Your task to perform on an android device: make emails show in primary in the gmail app Image 0: 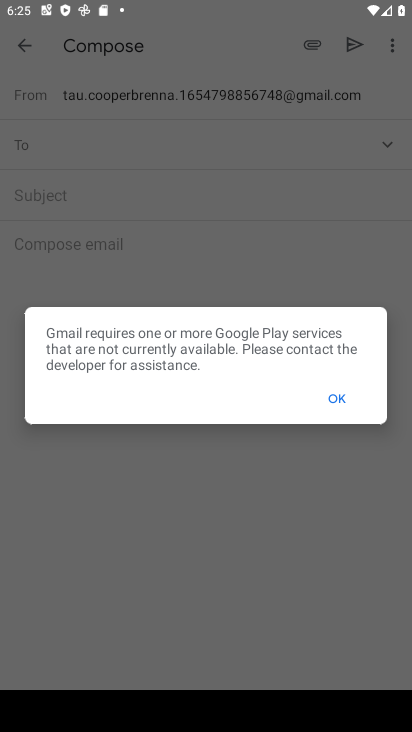
Step 0: press home button
Your task to perform on an android device: make emails show in primary in the gmail app Image 1: 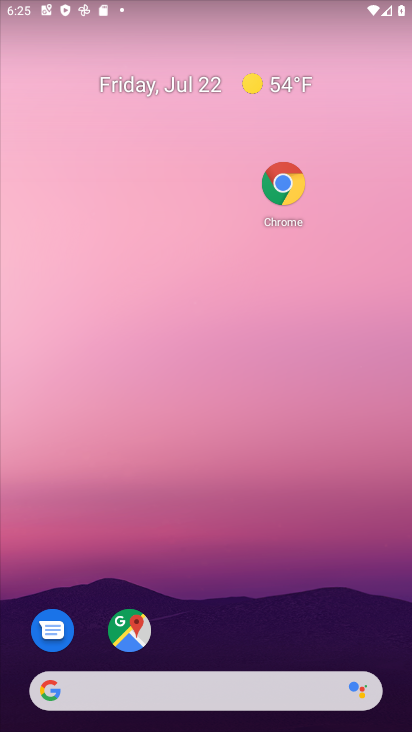
Step 1: drag from (167, 632) to (156, 271)
Your task to perform on an android device: make emails show in primary in the gmail app Image 2: 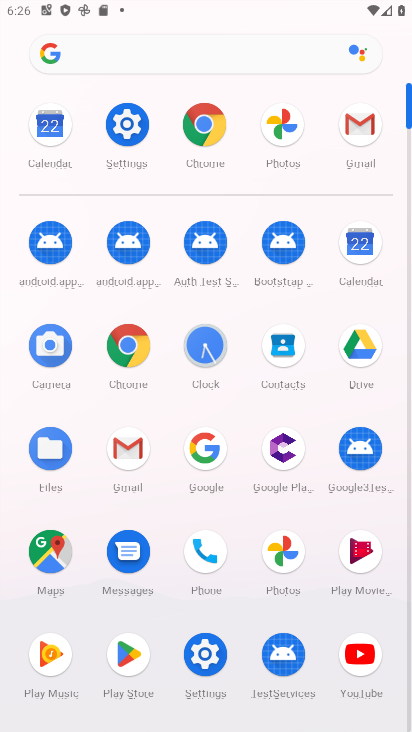
Step 2: click (145, 447)
Your task to perform on an android device: make emails show in primary in the gmail app Image 3: 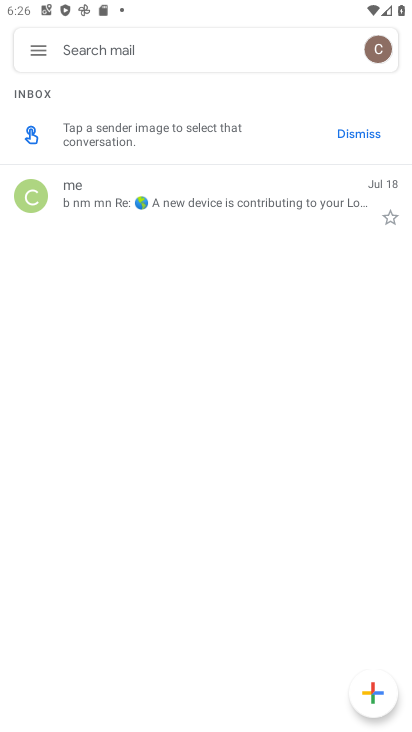
Step 3: click (39, 48)
Your task to perform on an android device: make emails show in primary in the gmail app Image 4: 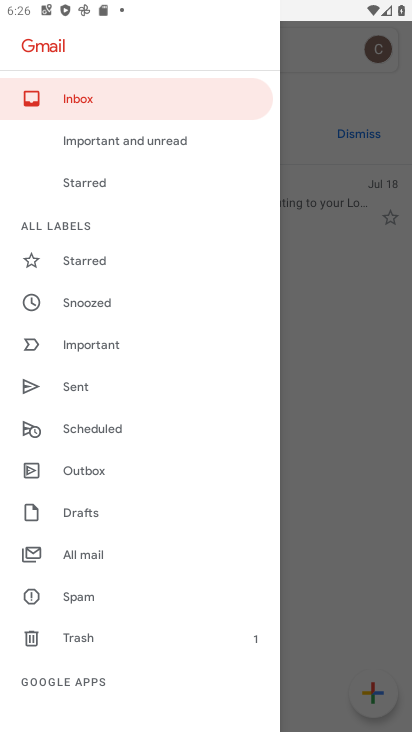
Step 4: drag from (104, 613) to (116, 242)
Your task to perform on an android device: make emails show in primary in the gmail app Image 5: 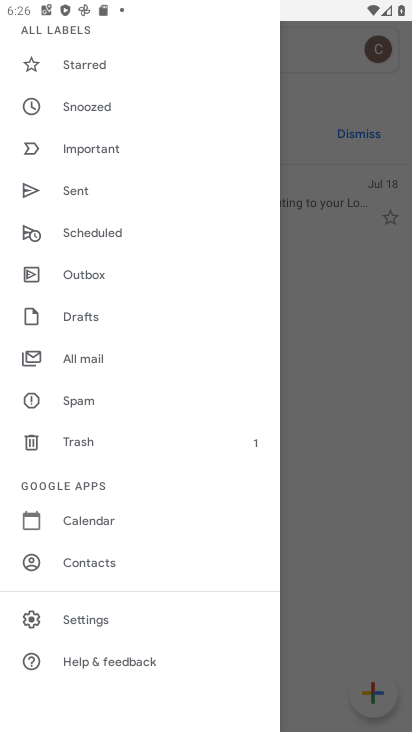
Step 5: click (89, 621)
Your task to perform on an android device: make emails show in primary in the gmail app Image 6: 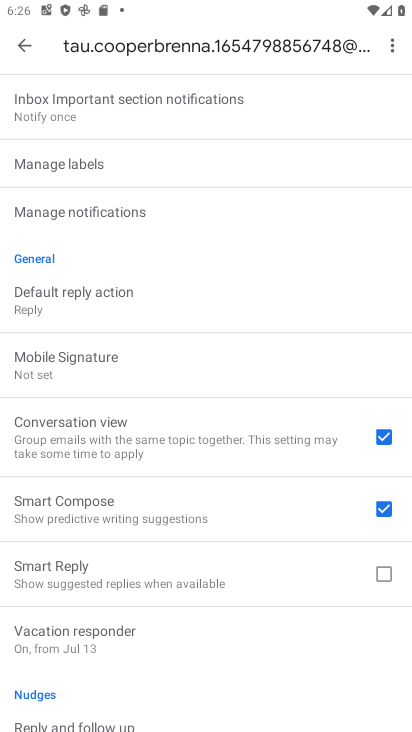
Step 6: task complete